Your task to perform on an android device: Open display settings Image 0: 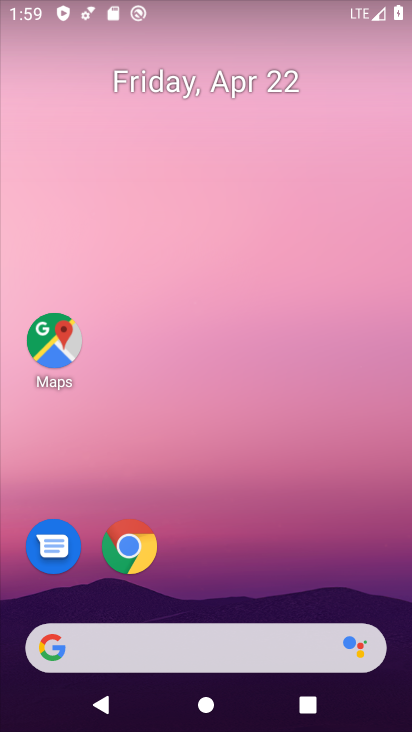
Step 0: drag from (277, 493) to (291, 119)
Your task to perform on an android device: Open display settings Image 1: 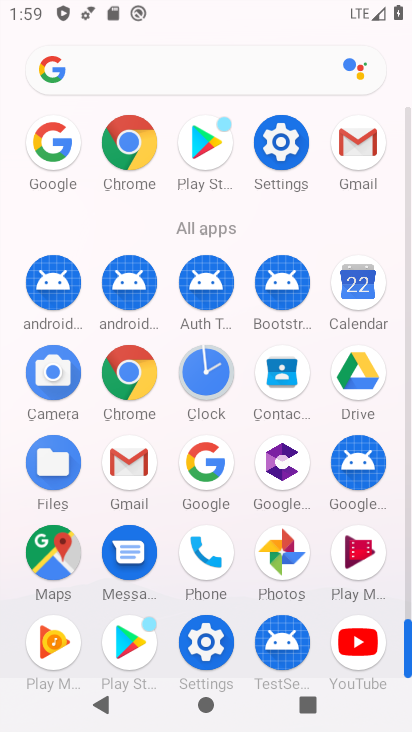
Step 1: click (215, 632)
Your task to perform on an android device: Open display settings Image 2: 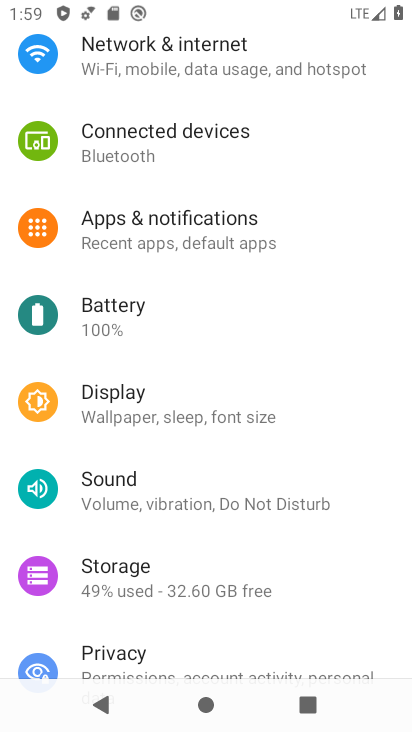
Step 2: click (204, 425)
Your task to perform on an android device: Open display settings Image 3: 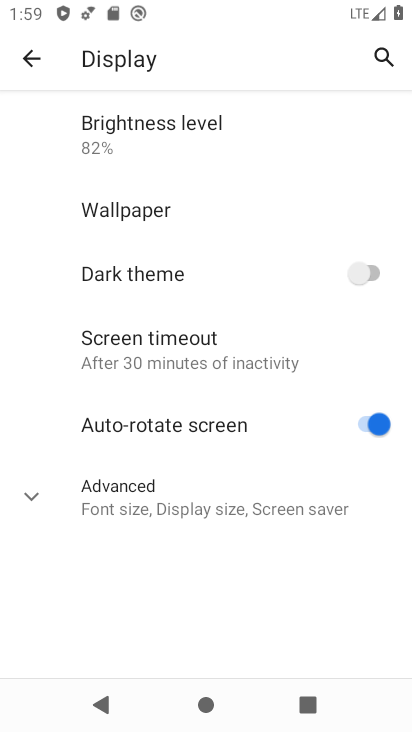
Step 3: click (179, 505)
Your task to perform on an android device: Open display settings Image 4: 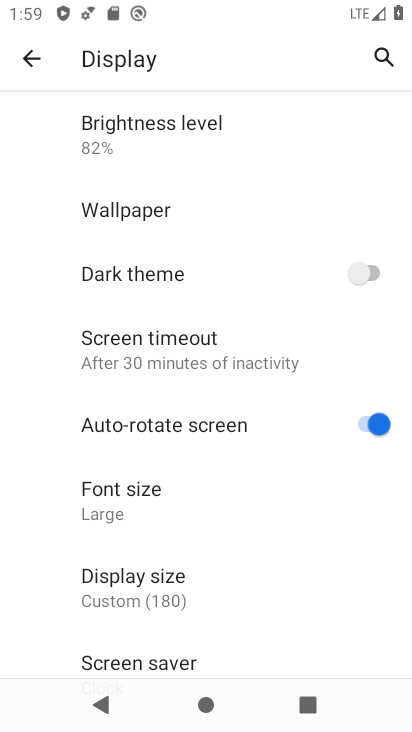
Step 4: task complete